Your task to perform on an android device: What's the weather today? Image 0: 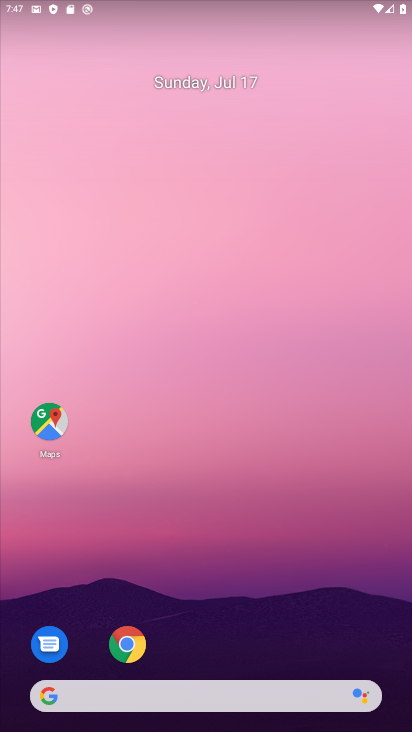
Step 0: click (191, 677)
Your task to perform on an android device: What's the weather today? Image 1: 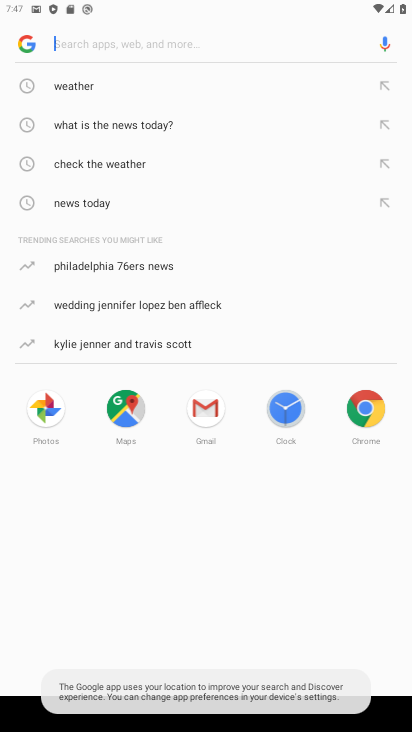
Step 1: click (75, 90)
Your task to perform on an android device: What's the weather today? Image 2: 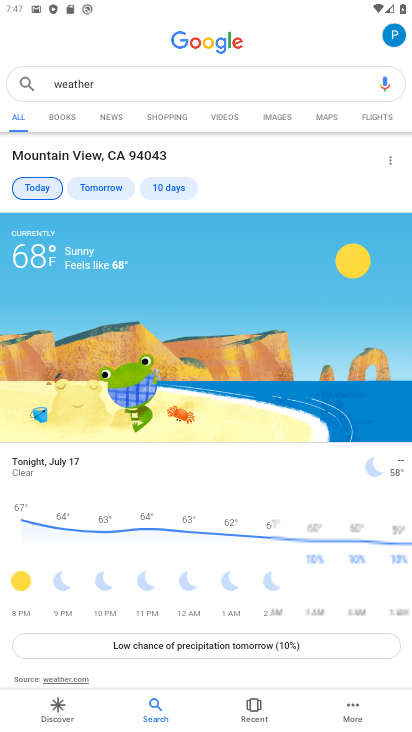
Step 2: task complete